Your task to perform on an android device: open a bookmark in the chrome app Image 0: 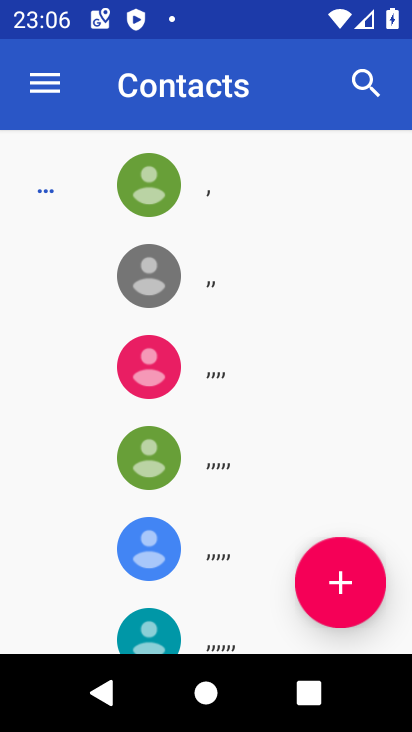
Step 0: press home button
Your task to perform on an android device: open a bookmark in the chrome app Image 1: 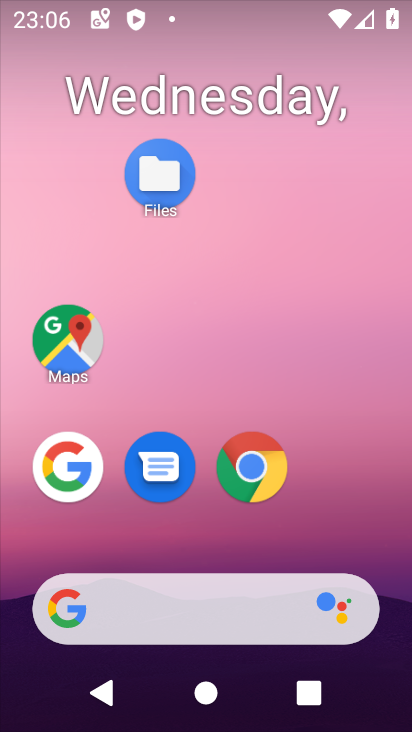
Step 1: drag from (213, 563) to (136, 159)
Your task to perform on an android device: open a bookmark in the chrome app Image 2: 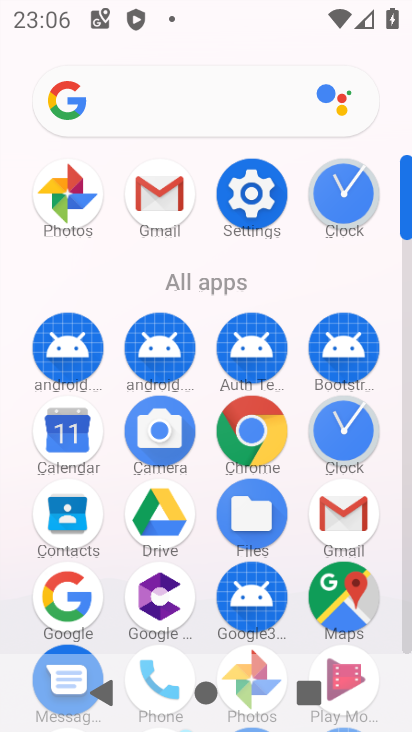
Step 2: click (257, 422)
Your task to perform on an android device: open a bookmark in the chrome app Image 3: 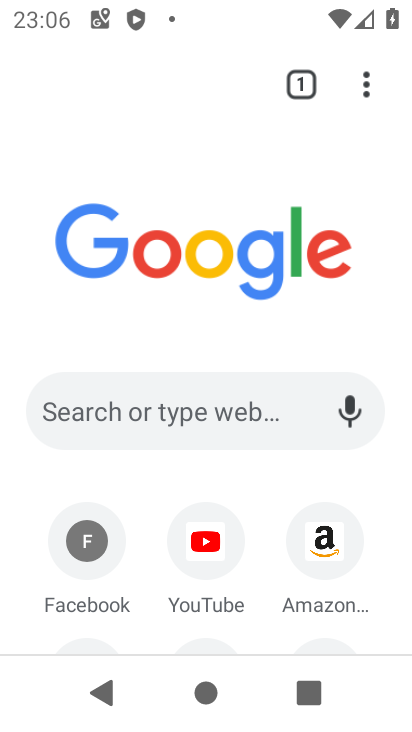
Step 3: click (367, 70)
Your task to perform on an android device: open a bookmark in the chrome app Image 4: 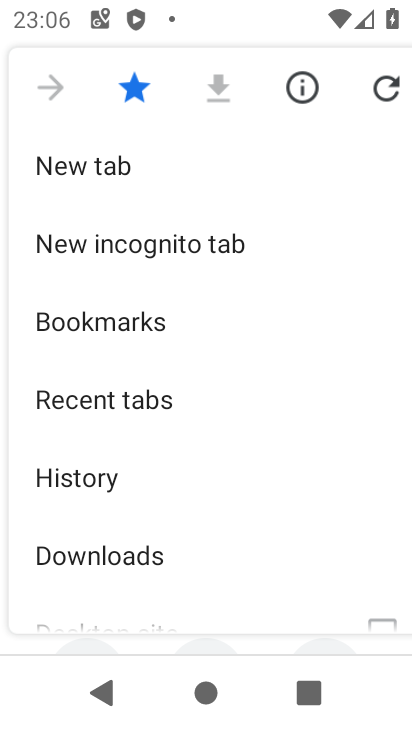
Step 4: click (101, 305)
Your task to perform on an android device: open a bookmark in the chrome app Image 5: 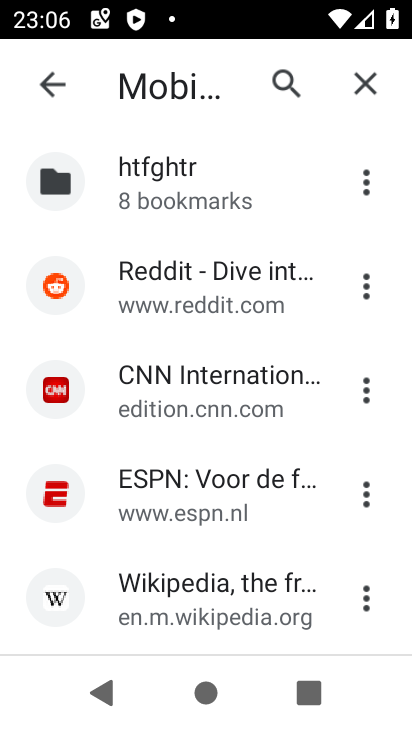
Step 5: task complete